Your task to perform on an android device: empty trash in the gmail app Image 0: 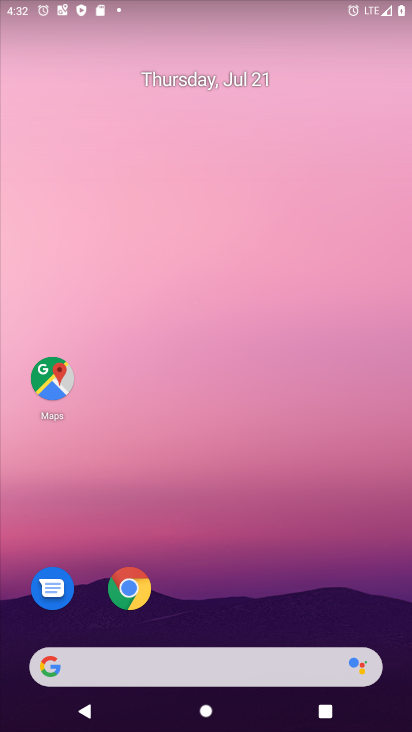
Step 0: drag from (275, 625) to (274, 40)
Your task to perform on an android device: empty trash in the gmail app Image 1: 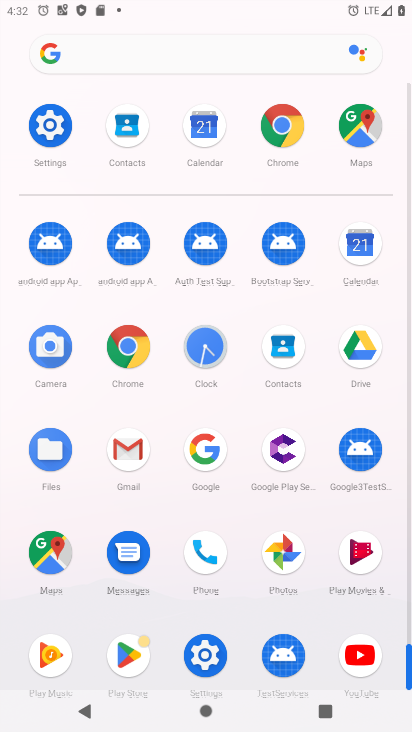
Step 1: click (285, 544)
Your task to perform on an android device: empty trash in the gmail app Image 2: 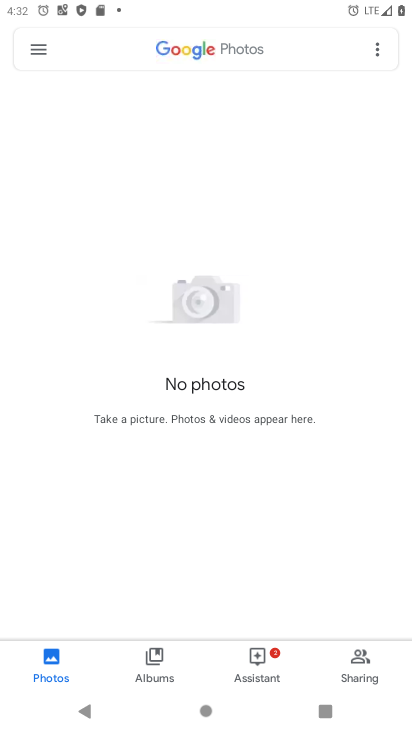
Step 2: click (27, 58)
Your task to perform on an android device: empty trash in the gmail app Image 3: 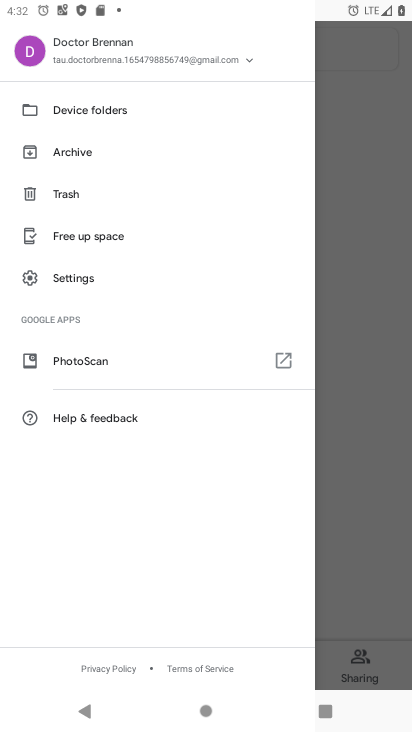
Step 3: click (55, 188)
Your task to perform on an android device: empty trash in the gmail app Image 4: 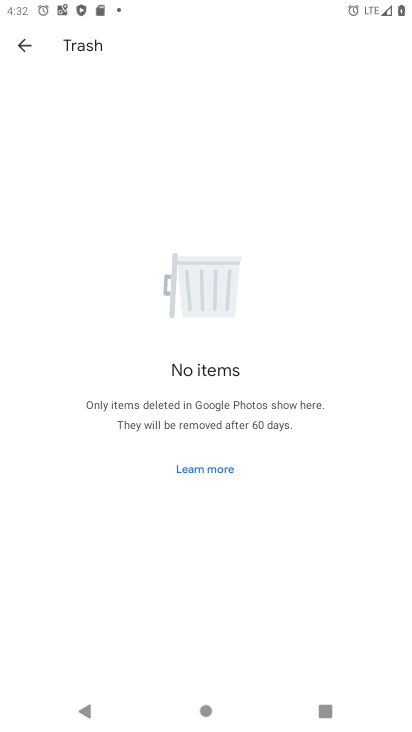
Step 4: task complete